Your task to perform on an android device: change the clock display to digital Image 0: 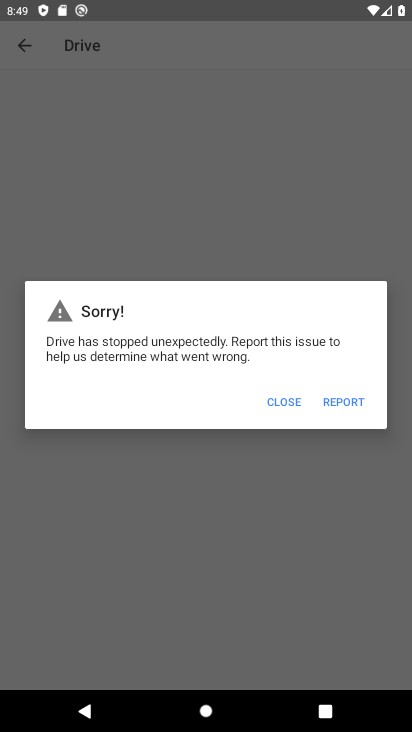
Step 0: press home button
Your task to perform on an android device: change the clock display to digital Image 1: 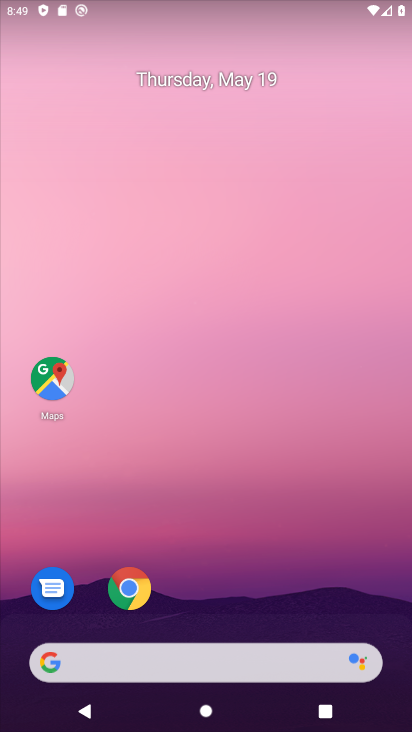
Step 1: drag from (227, 672) to (194, 85)
Your task to perform on an android device: change the clock display to digital Image 2: 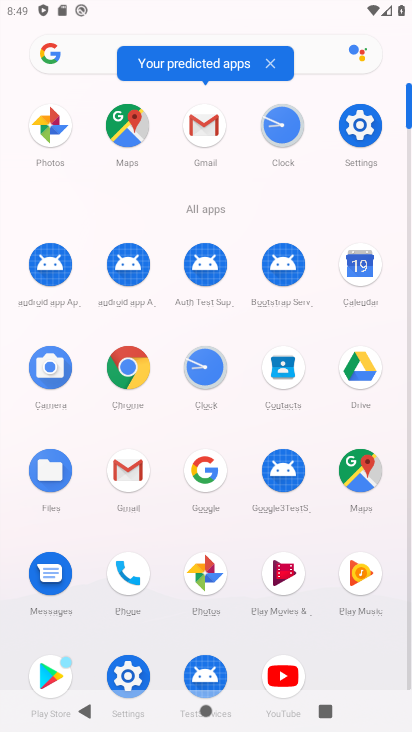
Step 2: click (195, 366)
Your task to perform on an android device: change the clock display to digital Image 3: 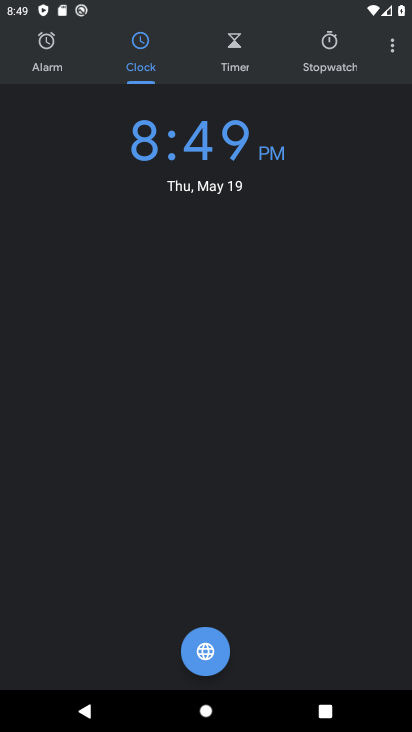
Step 3: click (379, 49)
Your task to perform on an android device: change the clock display to digital Image 4: 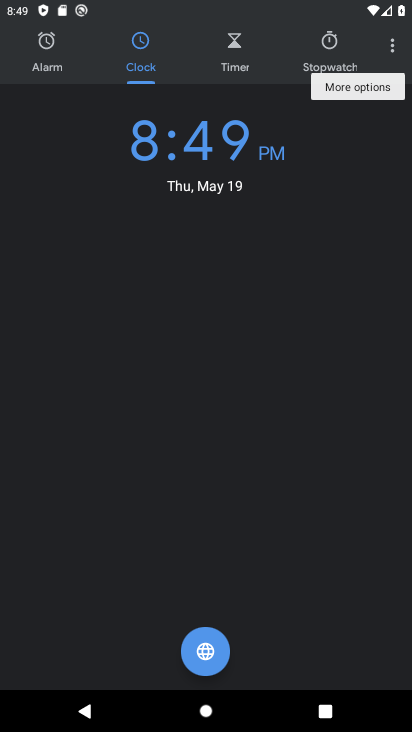
Step 4: click (379, 49)
Your task to perform on an android device: change the clock display to digital Image 5: 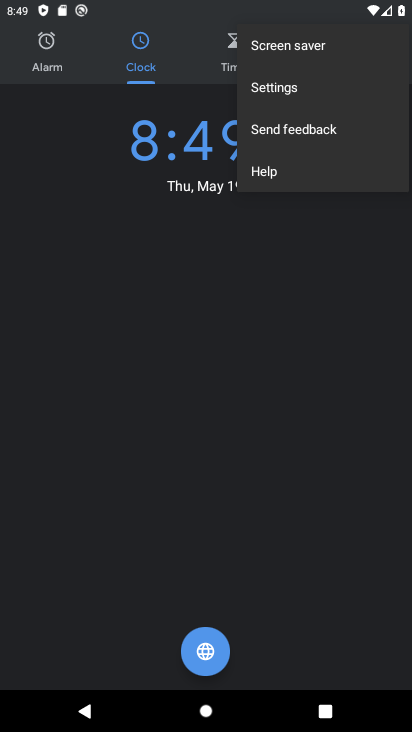
Step 5: click (324, 87)
Your task to perform on an android device: change the clock display to digital Image 6: 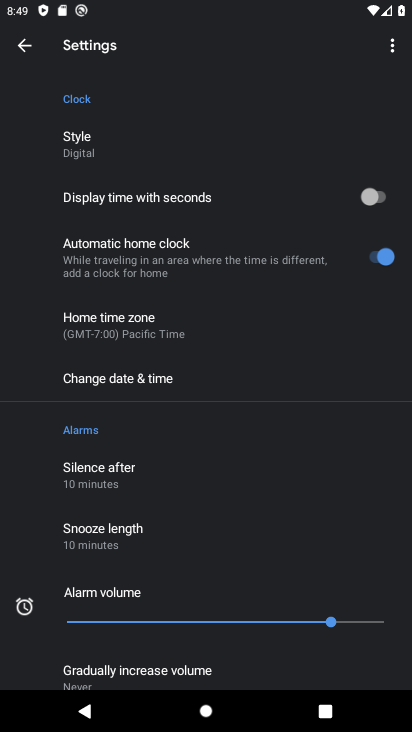
Step 6: click (152, 135)
Your task to perform on an android device: change the clock display to digital Image 7: 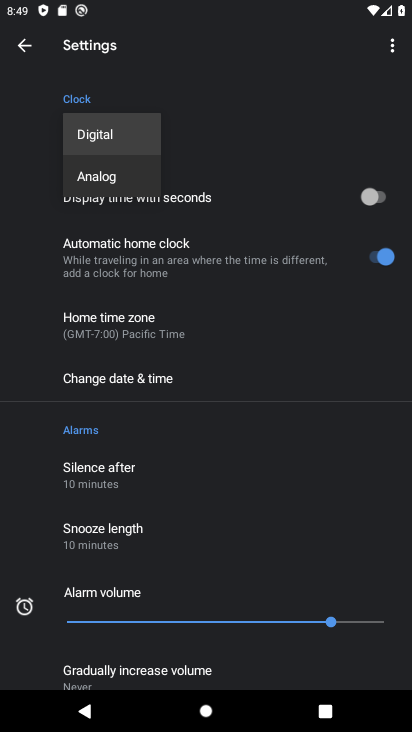
Step 7: click (87, 134)
Your task to perform on an android device: change the clock display to digital Image 8: 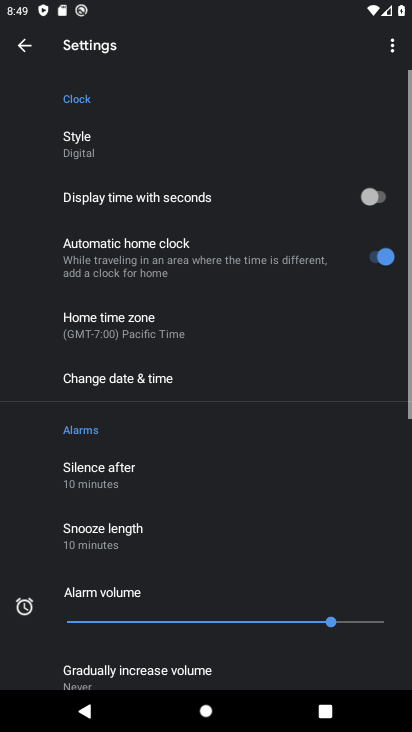
Step 8: task complete